Your task to perform on an android device: turn smart compose on in the gmail app Image 0: 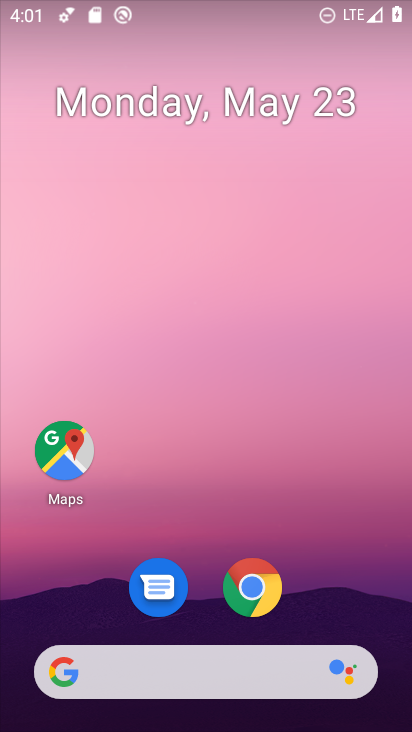
Step 0: drag from (200, 598) to (223, 66)
Your task to perform on an android device: turn smart compose on in the gmail app Image 1: 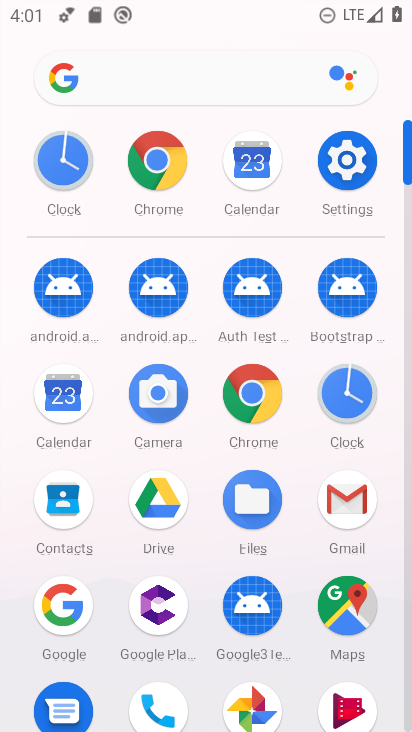
Step 1: click (356, 503)
Your task to perform on an android device: turn smart compose on in the gmail app Image 2: 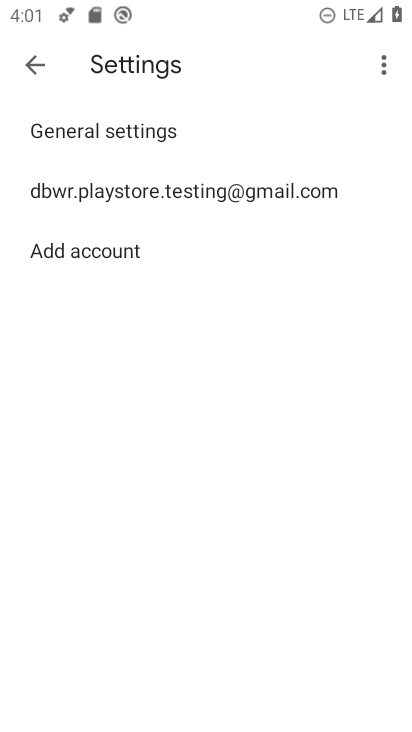
Step 2: click (103, 195)
Your task to perform on an android device: turn smart compose on in the gmail app Image 3: 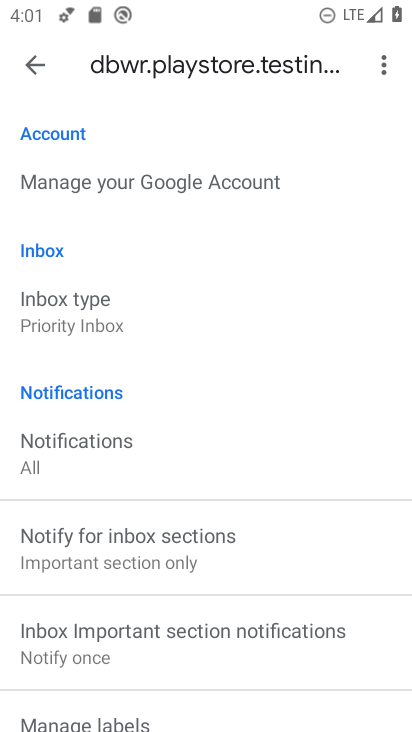
Step 3: task complete